Your task to perform on an android device: check storage Image 0: 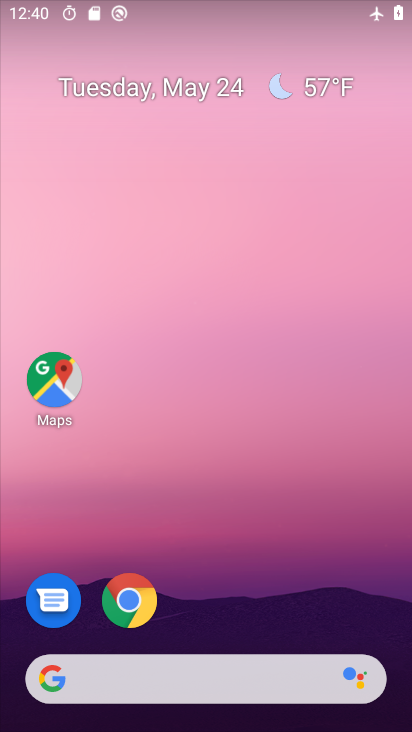
Step 0: drag from (225, 602) to (287, 88)
Your task to perform on an android device: check storage Image 1: 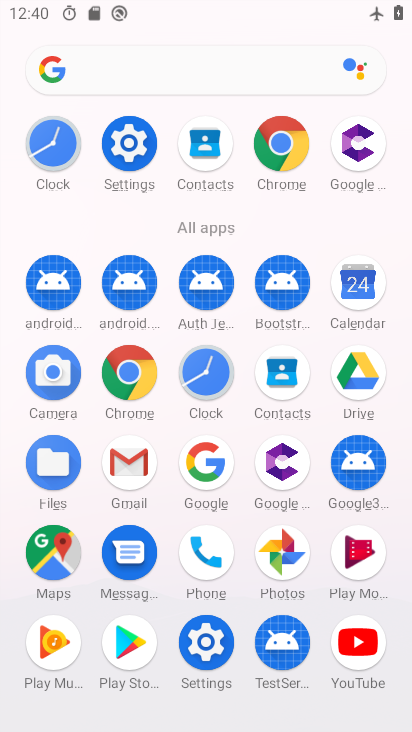
Step 1: click (188, 646)
Your task to perform on an android device: check storage Image 2: 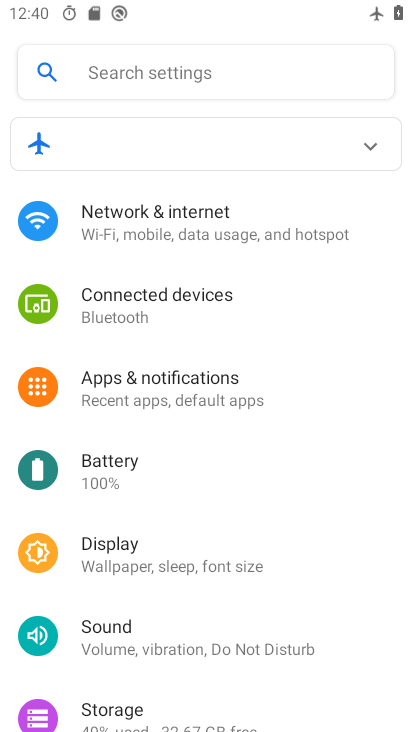
Step 2: drag from (182, 636) to (246, 205)
Your task to perform on an android device: check storage Image 3: 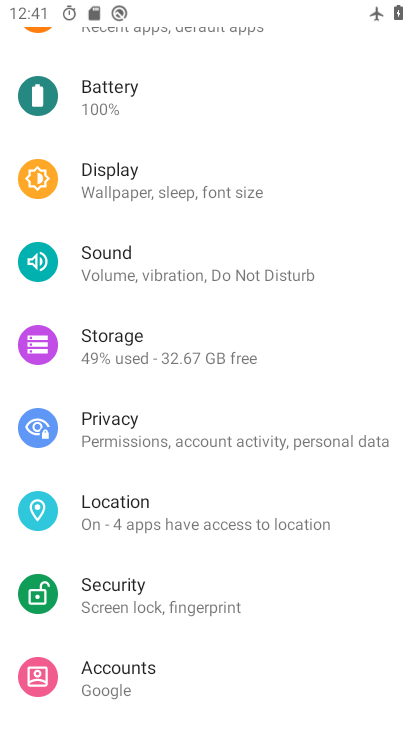
Step 3: click (146, 342)
Your task to perform on an android device: check storage Image 4: 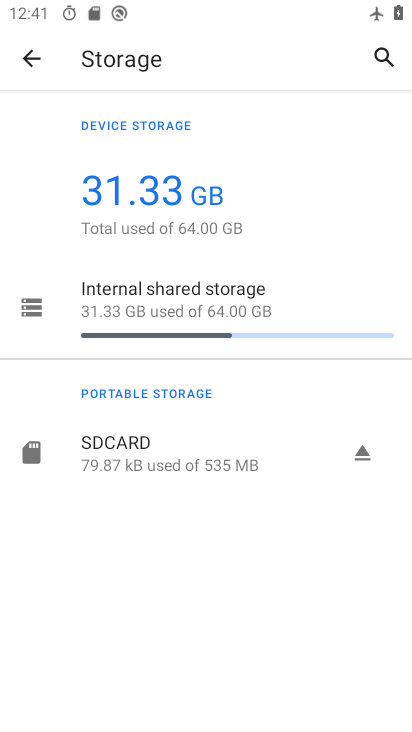
Step 4: task complete